Your task to perform on an android device: Open notification settings Image 0: 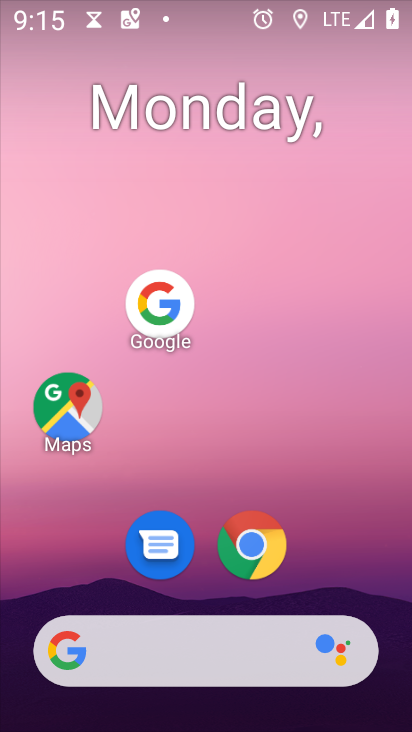
Step 0: press home button
Your task to perform on an android device: Open notification settings Image 1: 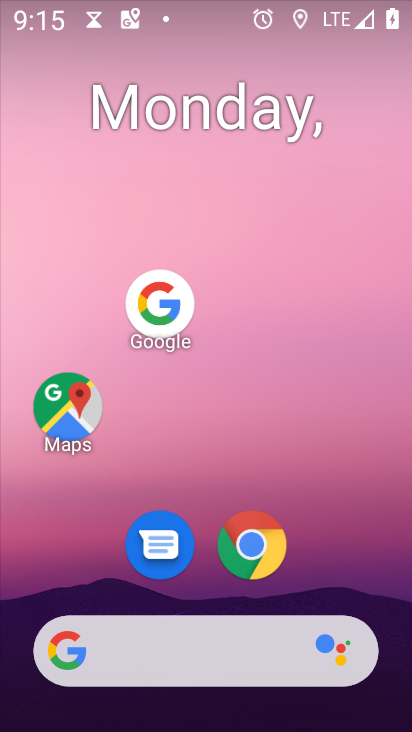
Step 1: drag from (166, 659) to (343, 111)
Your task to perform on an android device: Open notification settings Image 2: 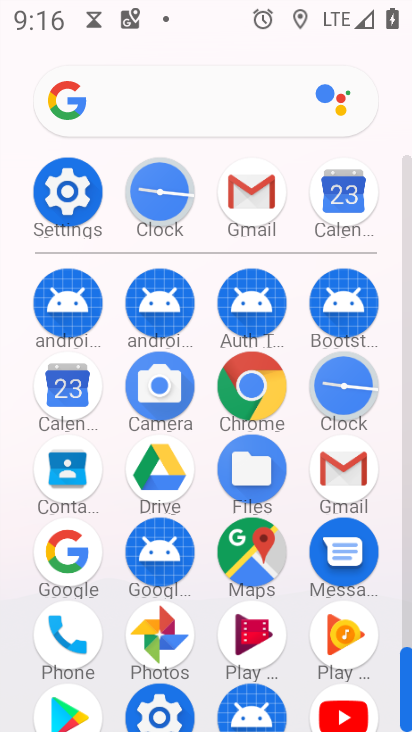
Step 2: click (74, 201)
Your task to perform on an android device: Open notification settings Image 3: 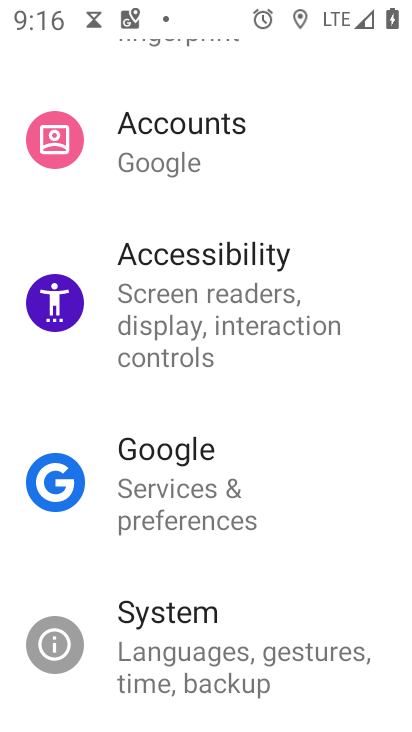
Step 3: drag from (311, 176) to (276, 660)
Your task to perform on an android device: Open notification settings Image 4: 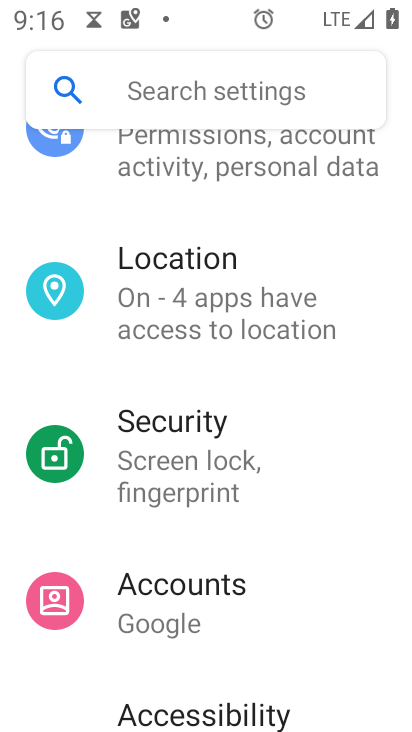
Step 4: drag from (317, 244) to (256, 688)
Your task to perform on an android device: Open notification settings Image 5: 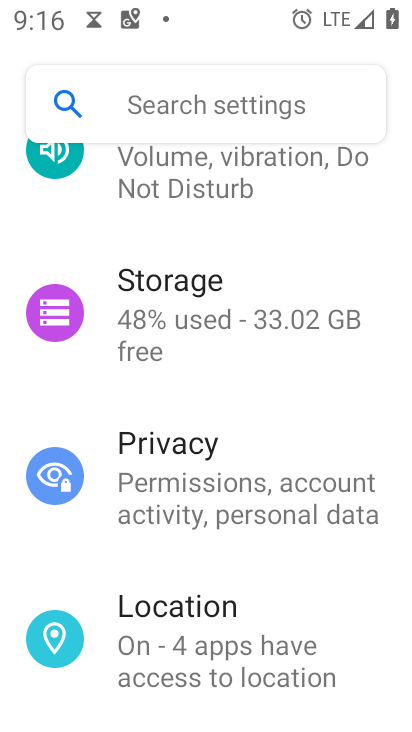
Step 5: drag from (290, 234) to (226, 645)
Your task to perform on an android device: Open notification settings Image 6: 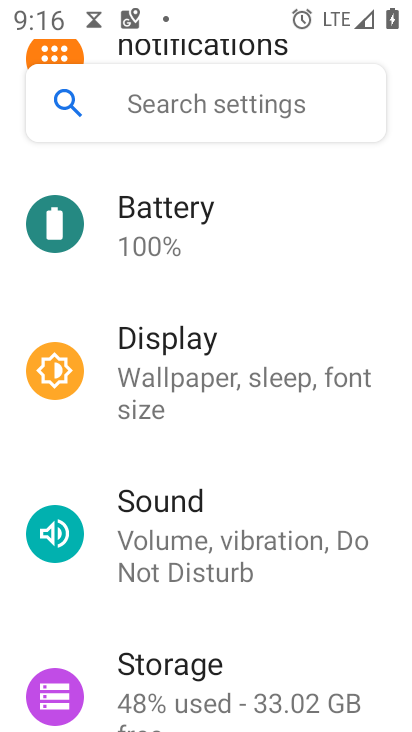
Step 6: drag from (297, 287) to (223, 674)
Your task to perform on an android device: Open notification settings Image 7: 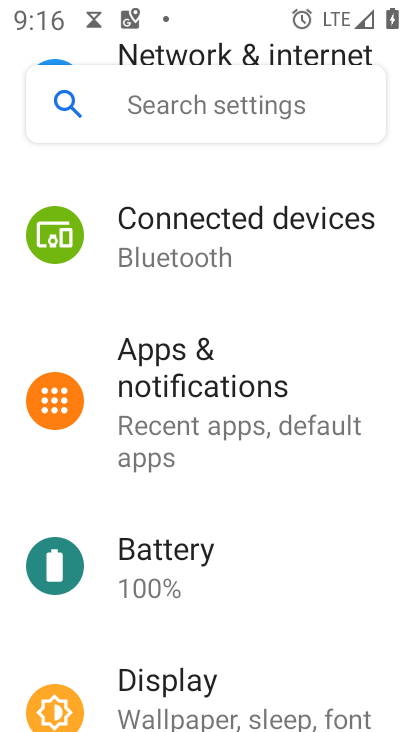
Step 7: click (239, 390)
Your task to perform on an android device: Open notification settings Image 8: 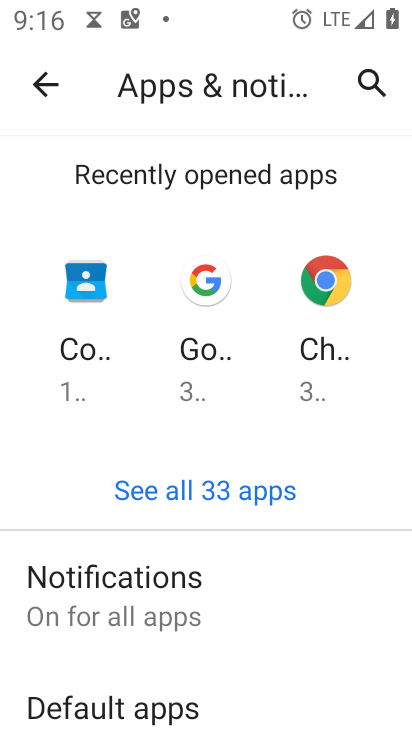
Step 8: click (158, 607)
Your task to perform on an android device: Open notification settings Image 9: 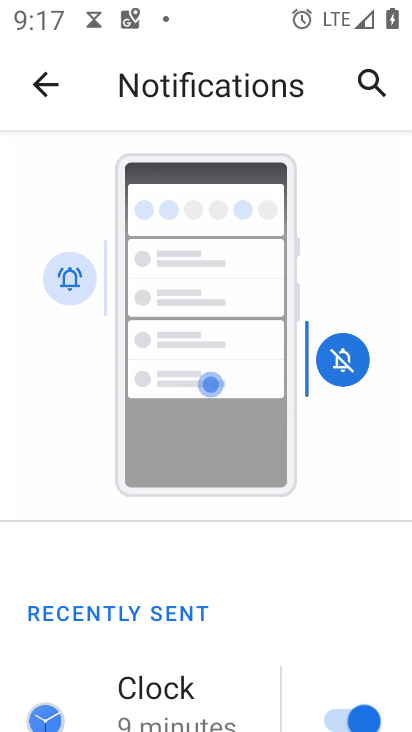
Step 9: task complete